Your task to perform on an android device: visit the assistant section in the google photos Image 0: 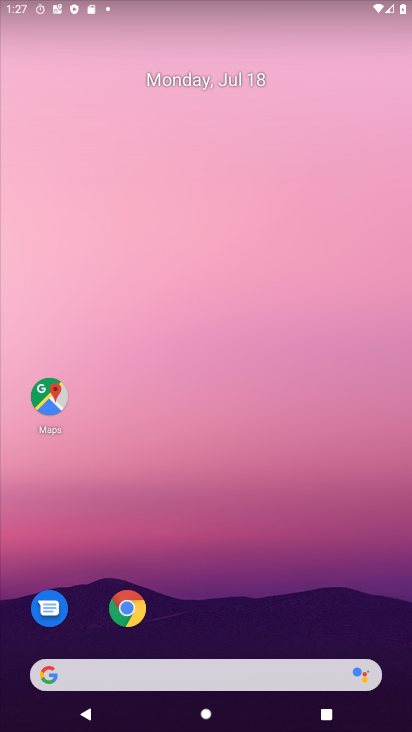
Step 0: drag from (231, 642) to (231, 90)
Your task to perform on an android device: visit the assistant section in the google photos Image 1: 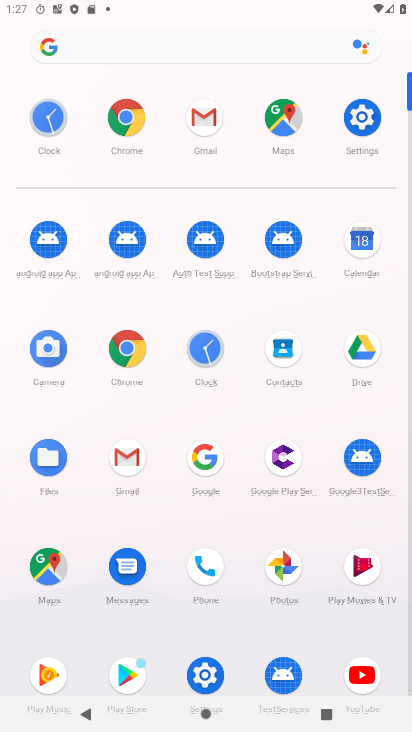
Step 1: click (287, 558)
Your task to perform on an android device: visit the assistant section in the google photos Image 2: 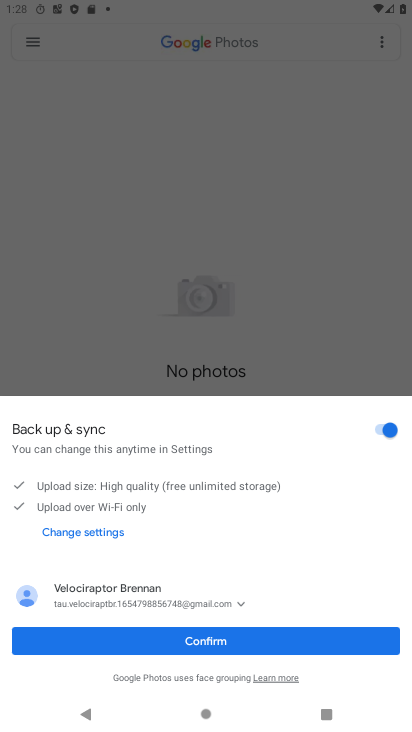
Step 2: click (269, 640)
Your task to perform on an android device: visit the assistant section in the google photos Image 3: 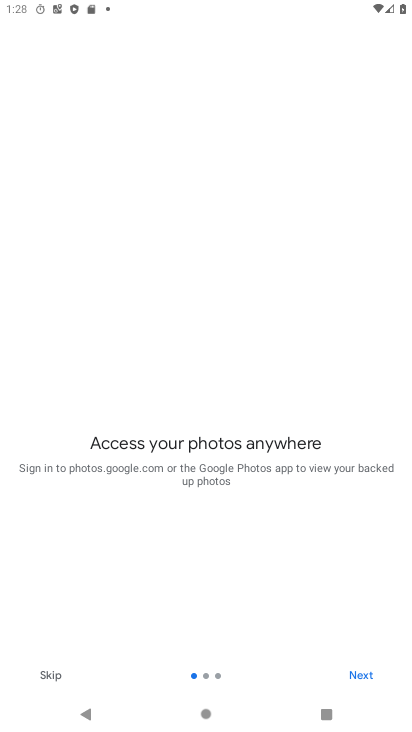
Step 3: click (363, 675)
Your task to perform on an android device: visit the assistant section in the google photos Image 4: 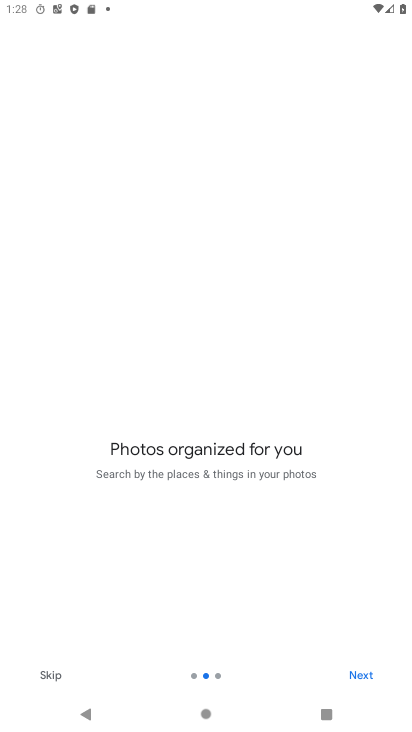
Step 4: click (363, 675)
Your task to perform on an android device: visit the assistant section in the google photos Image 5: 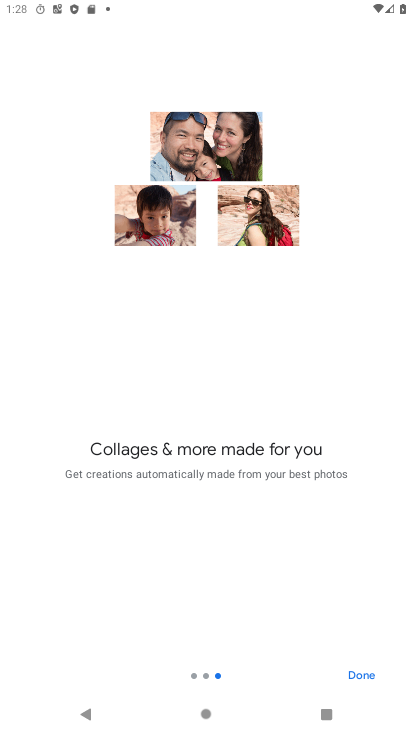
Step 5: click (363, 675)
Your task to perform on an android device: visit the assistant section in the google photos Image 6: 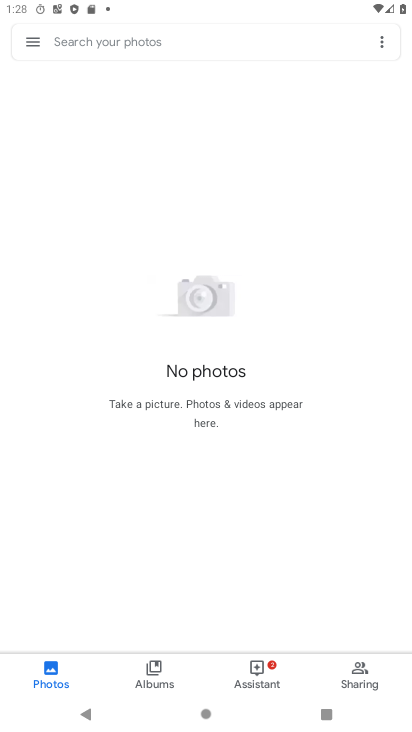
Step 6: click (260, 675)
Your task to perform on an android device: visit the assistant section in the google photos Image 7: 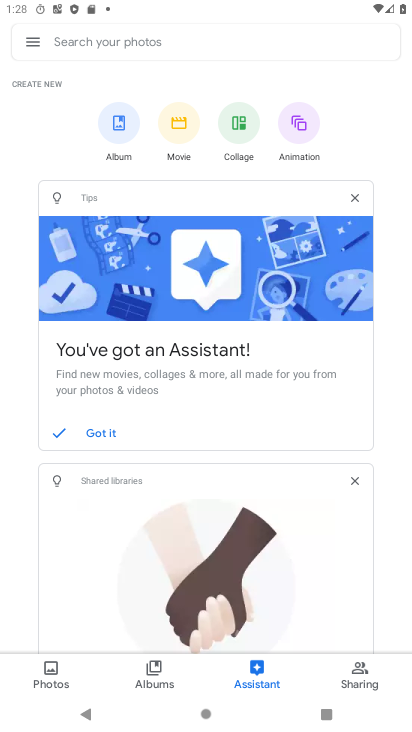
Step 7: task complete